Your task to perform on an android device: check data usage Image 0: 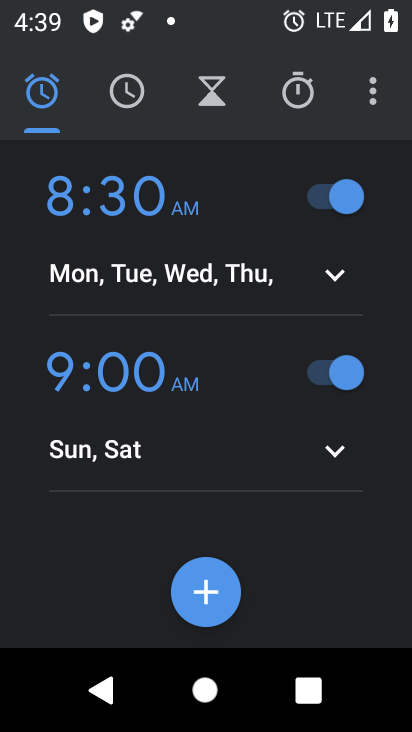
Step 0: press home button
Your task to perform on an android device: check data usage Image 1: 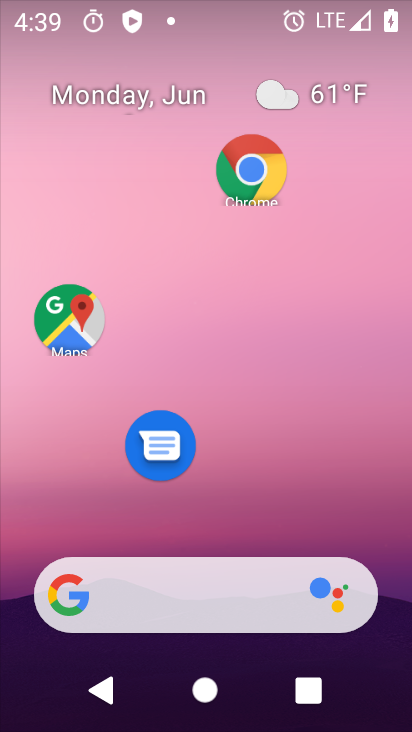
Step 1: drag from (198, 532) to (334, 0)
Your task to perform on an android device: check data usage Image 2: 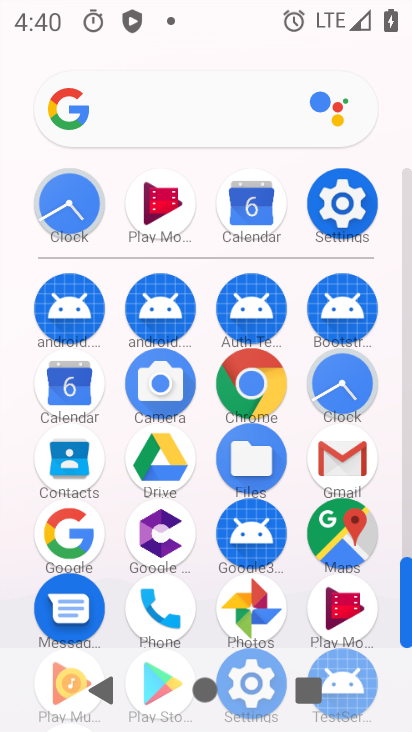
Step 2: click (346, 211)
Your task to perform on an android device: check data usage Image 3: 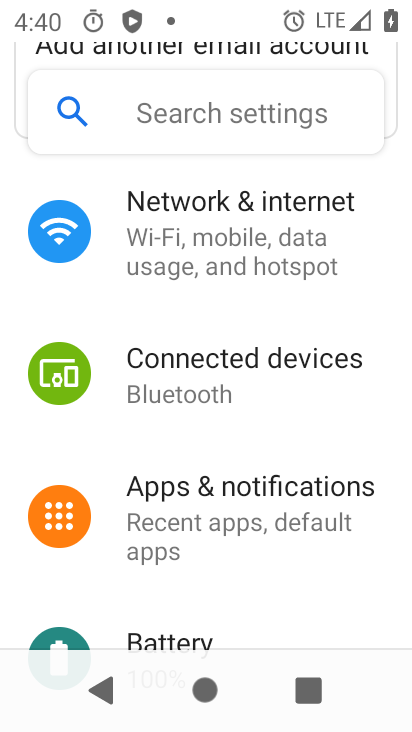
Step 3: click (224, 244)
Your task to perform on an android device: check data usage Image 4: 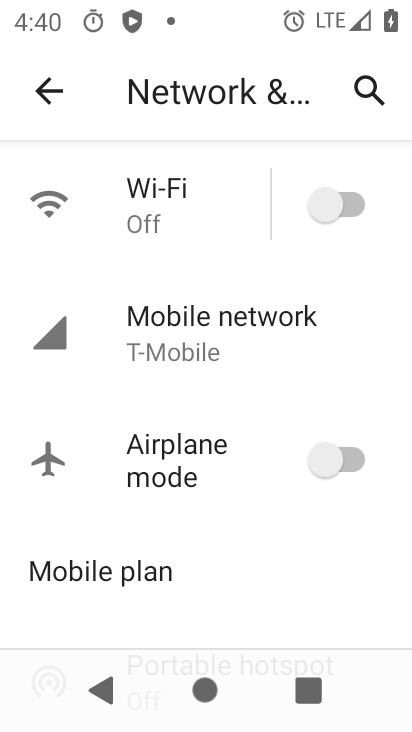
Step 4: click (213, 350)
Your task to perform on an android device: check data usage Image 5: 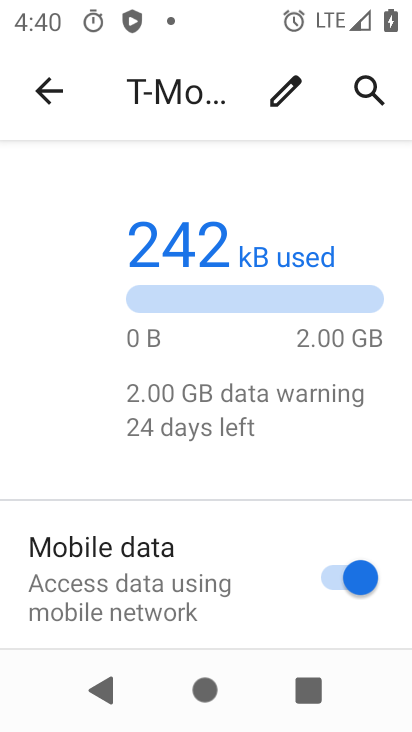
Step 5: task complete